Your task to perform on an android device: Search for Italian restaurants on Maps Image 0: 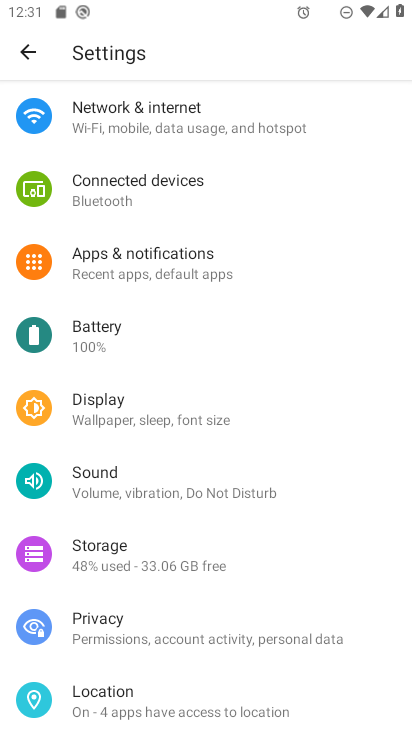
Step 0: press home button
Your task to perform on an android device: Search for Italian restaurants on Maps Image 1: 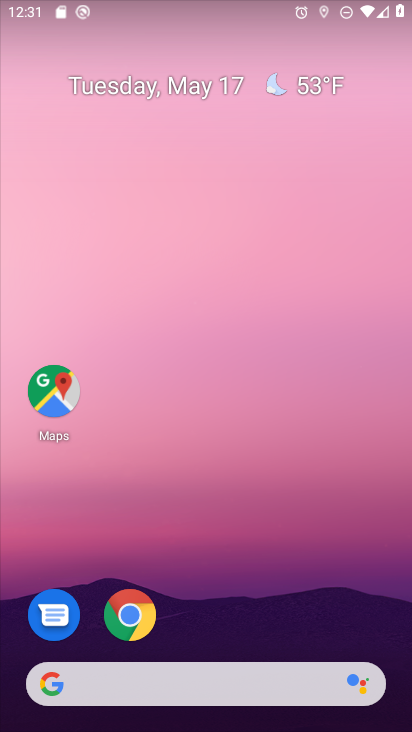
Step 1: click (52, 379)
Your task to perform on an android device: Search for Italian restaurants on Maps Image 2: 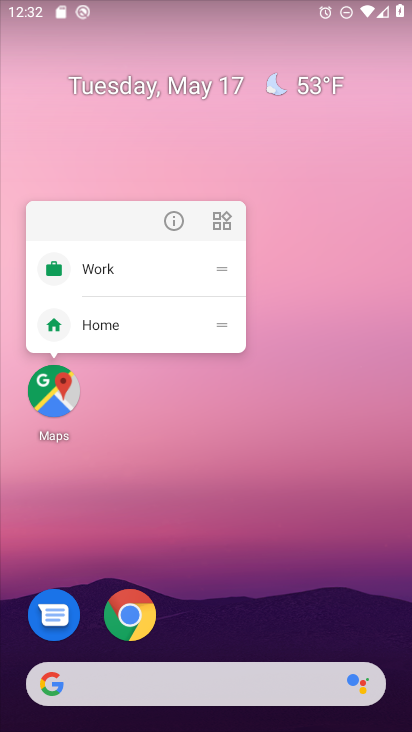
Step 2: click (43, 392)
Your task to perform on an android device: Search for Italian restaurants on Maps Image 3: 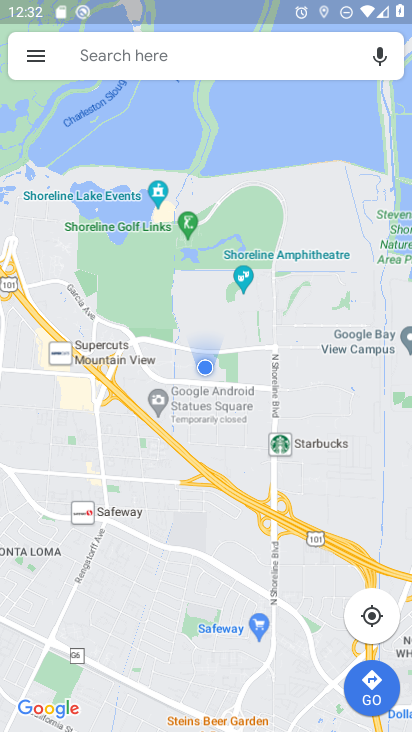
Step 3: click (119, 54)
Your task to perform on an android device: Search for Italian restaurants on Maps Image 4: 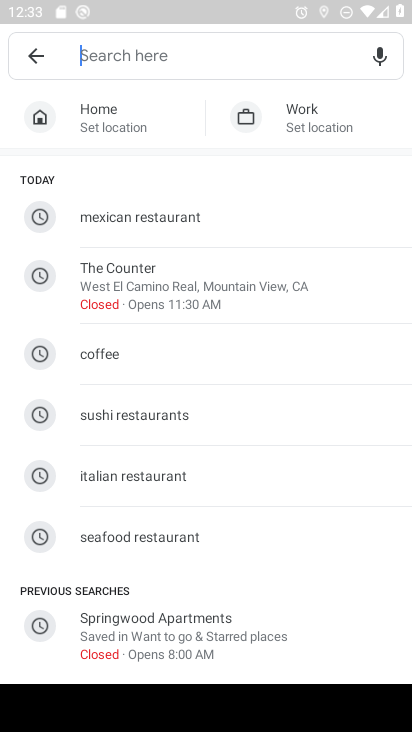
Step 4: click (121, 474)
Your task to perform on an android device: Search for Italian restaurants on Maps Image 5: 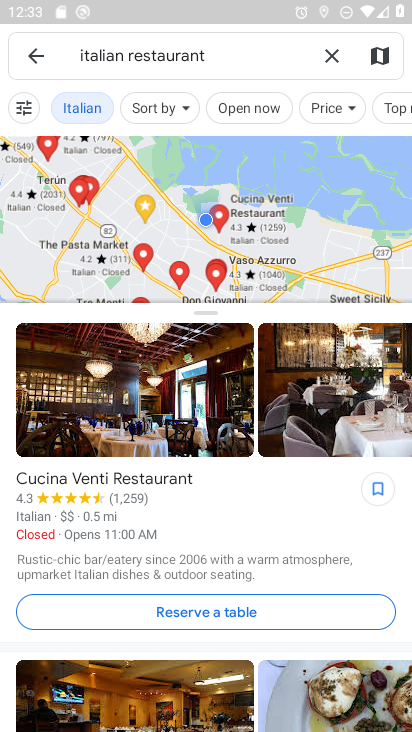
Step 5: task complete